Your task to perform on an android device: check android version Image 0: 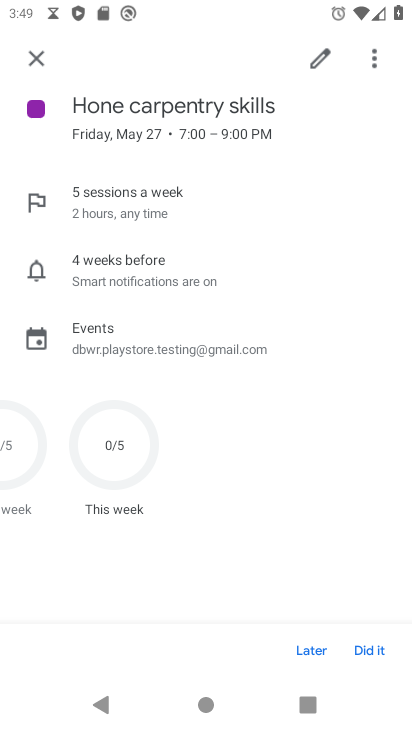
Step 0: press back button
Your task to perform on an android device: check android version Image 1: 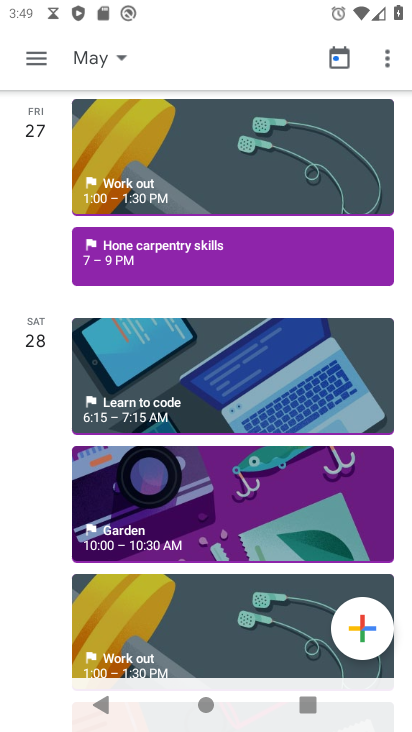
Step 1: press home button
Your task to perform on an android device: check android version Image 2: 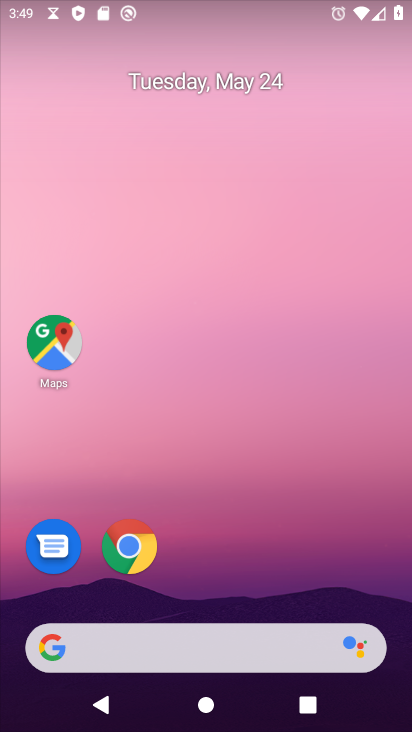
Step 2: drag from (274, 670) to (264, 51)
Your task to perform on an android device: check android version Image 3: 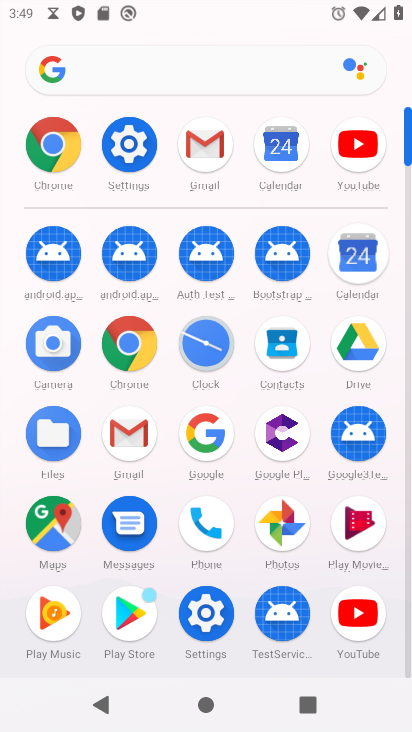
Step 3: click (133, 157)
Your task to perform on an android device: check android version Image 4: 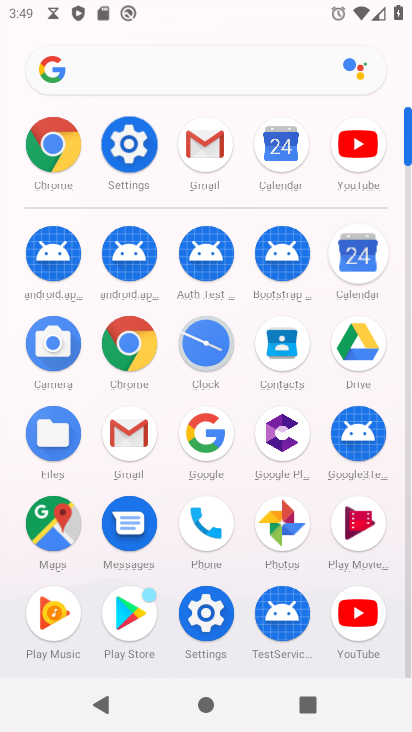
Step 4: click (133, 155)
Your task to perform on an android device: check android version Image 5: 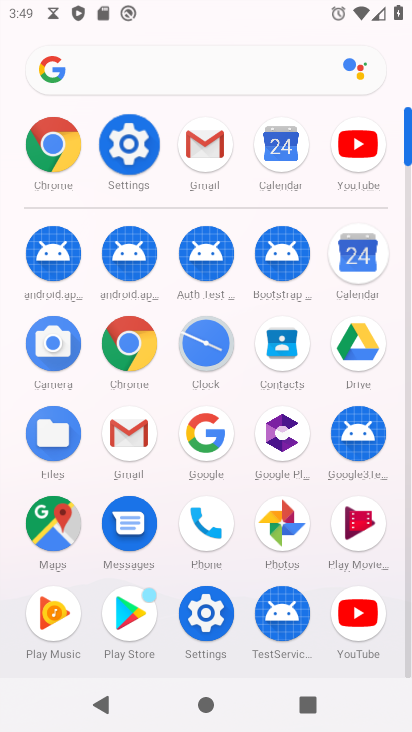
Step 5: click (132, 154)
Your task to perform on an android device: check android version Image 6: 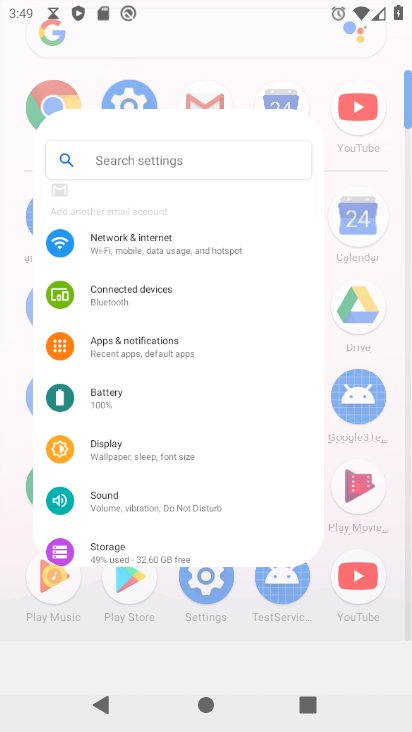
Step 6: click (132, 154)
Your task to perform on an android device: check android version Image 7: 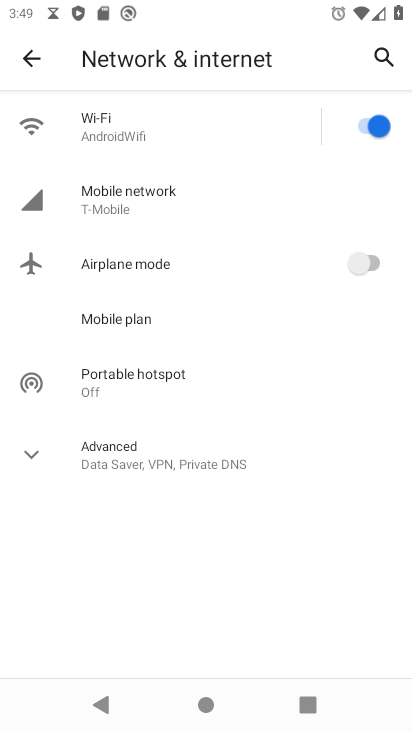
Step 7: drag from (237, 553) to (222, 6)
Your task to perform on an android device: check android version Image 8: 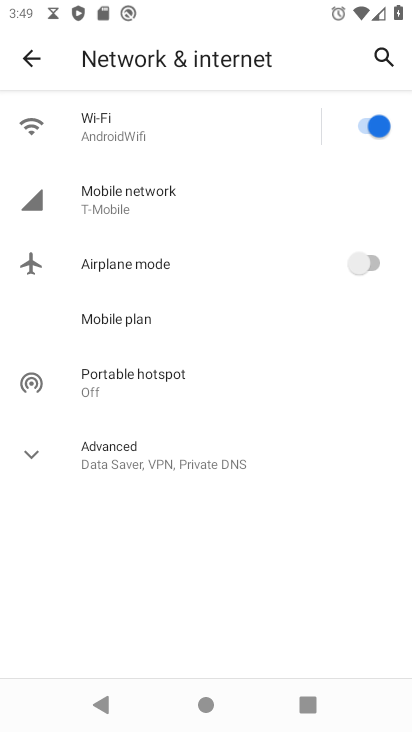
Step 8: click (30, 61)
Your task to perform on an android device: check android version Image 9: 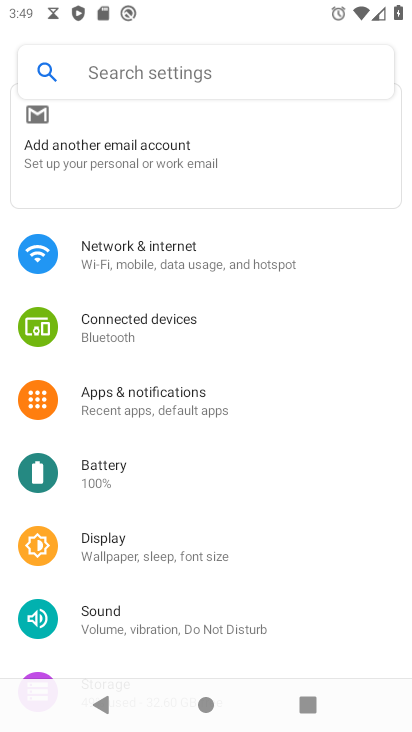
Step 9: drag from (208, 591) to (106, 196)
Your task to perform on an android device: check android version Image 10: 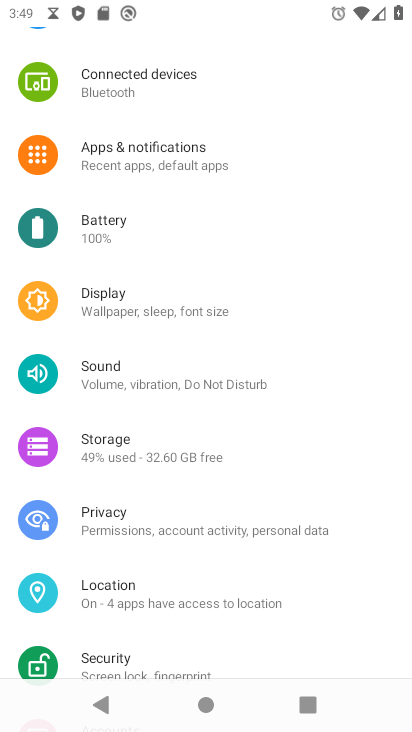
Step 10: drag from (206, 514) to (164, 163)
Your task to perform on an android device: check android version Image 11: 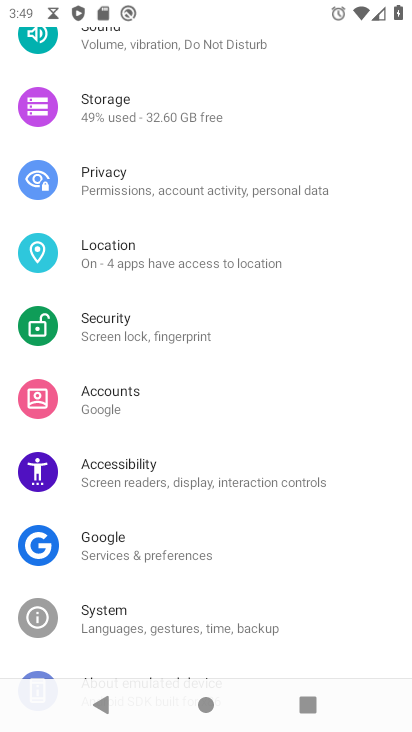
Step 11: drag from (222, 503) to (165, 94)
Your task to perform on an android device: check android version Image 12: 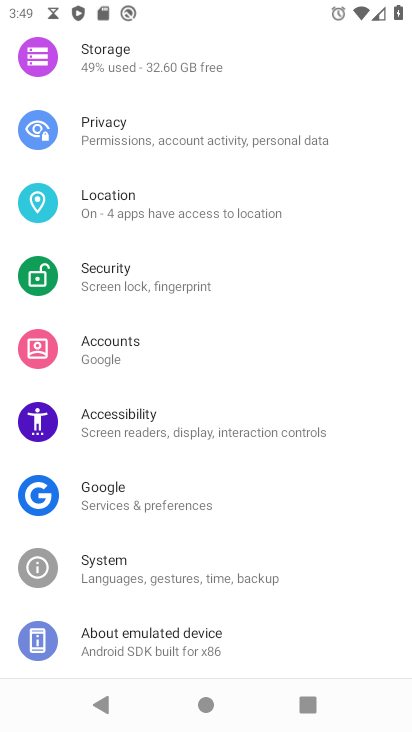
Step 12: drag from (204, 554) to (197, 102)
Your task to perform on an android device: check android version Image 13: 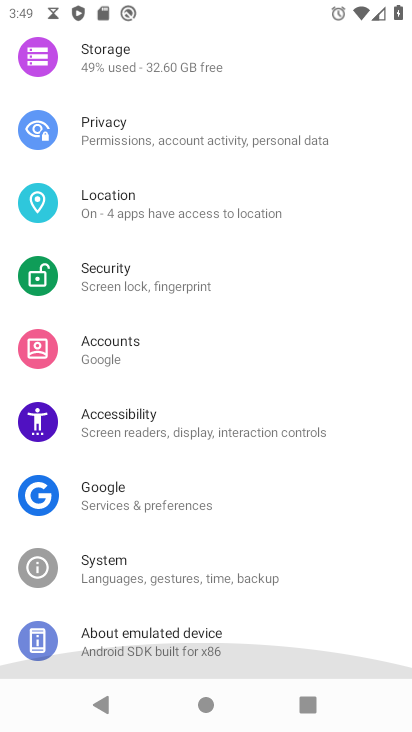
Step 13: drag from (268, 601) to (264, 155)
Your task to perform on an android device: check android version Image 14: 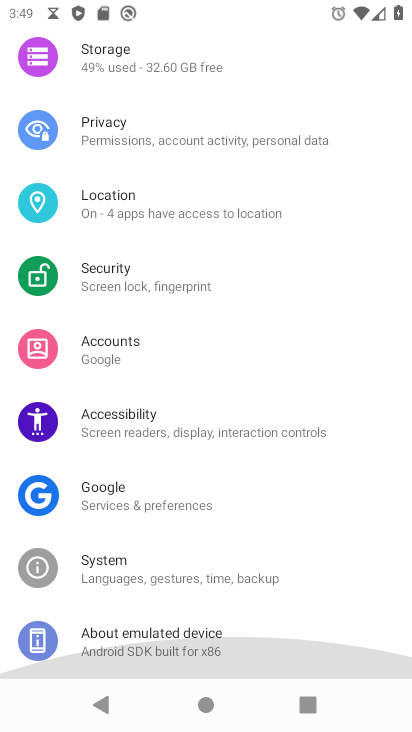
Step 14: drag from (247, 674) to (136, 219)
Your task to perform on an android device: check android version Image 15: 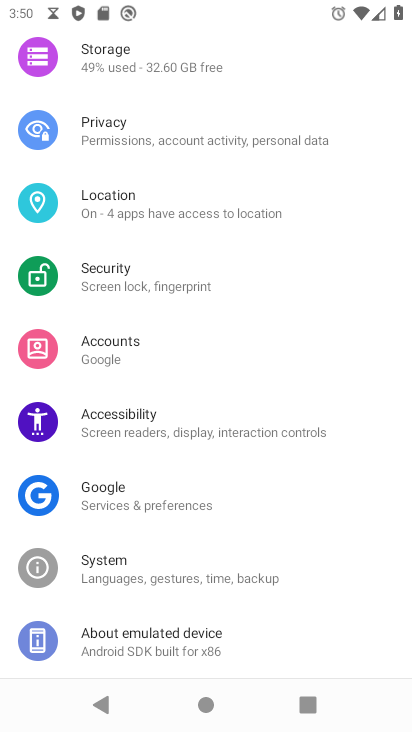
Step 15: click (141, 632)
Your task to perform on an android device: check android version Image 16: 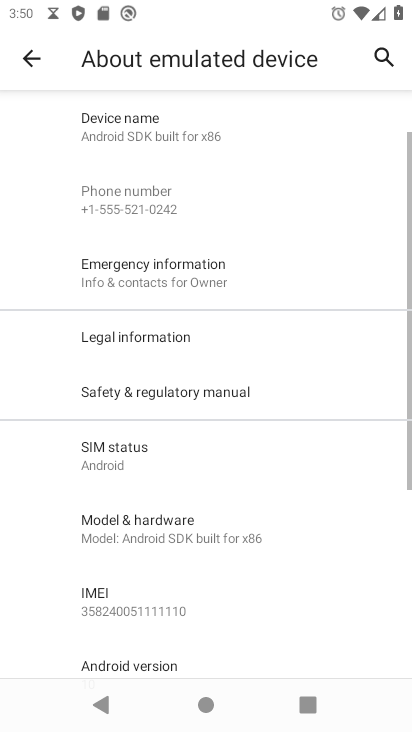
Step 16: drag from (143, 645) to (133, 264)
Your task to perform on an android device: check android version Image 17: 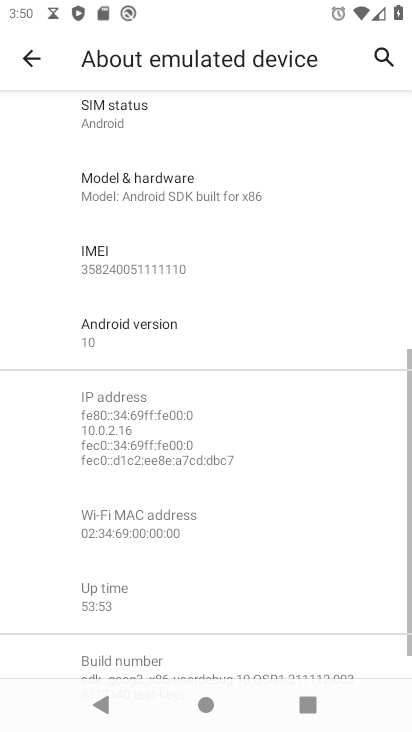
Step 17: drag from (172, 618) to (138, 251)
Your task to perform on an android device: check android version Image 18: 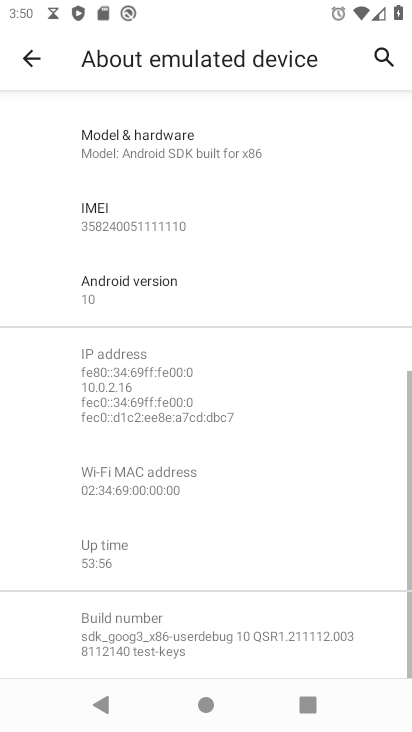
Step 18: click (109, 287)
Your task to perform on an android device: check android version Image 19: 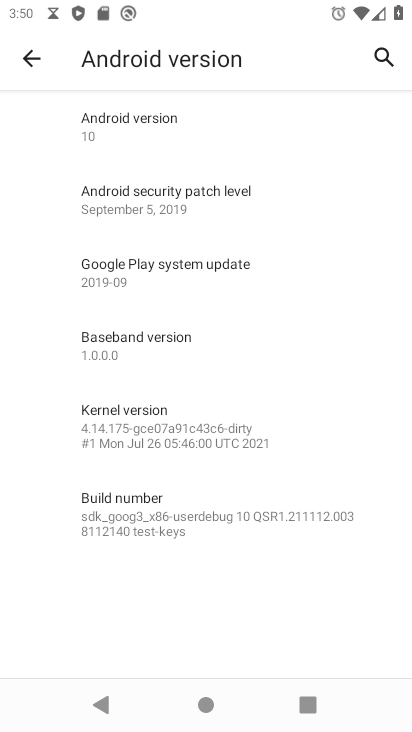
Step 19: task complete